Your task to perform on an android device: Go to network settings Image 0: 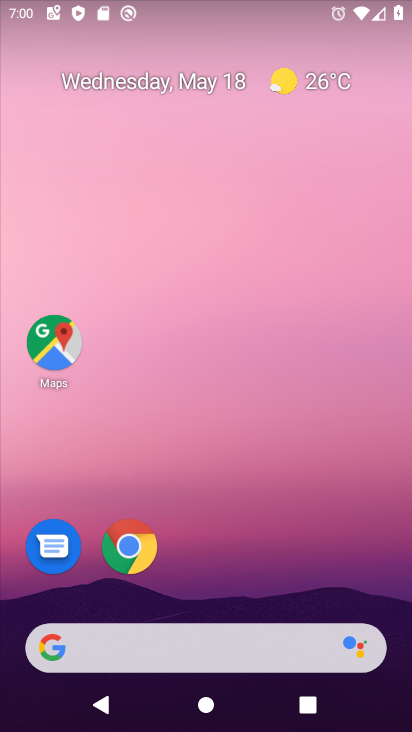
Step 0: drag from (391, 619) to (244, 85)
Your task to perform on an android device: Go to network settings Image 1: 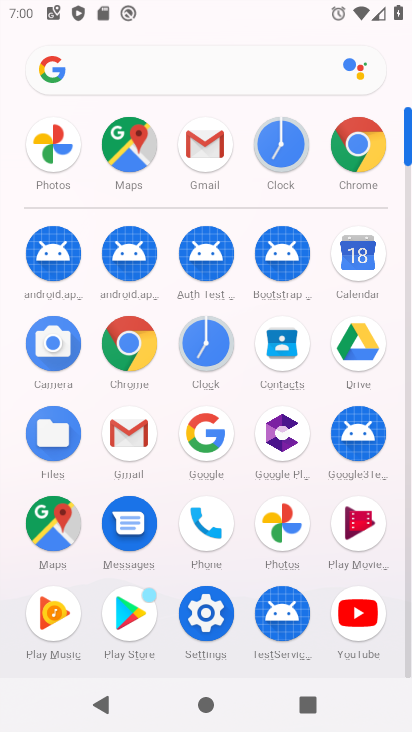
Step 1: click (202, 627)
Your task to perform on an android device: Go to network settings Image 2: 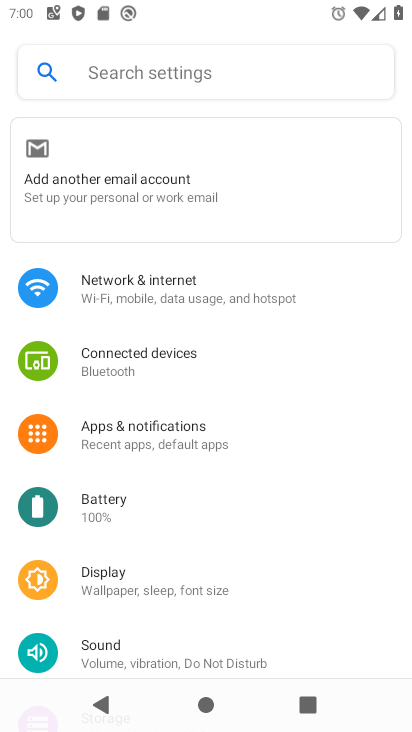
Step 2: click (146, 298)
Your task to perform on an android device: Go to network settings Image 3: 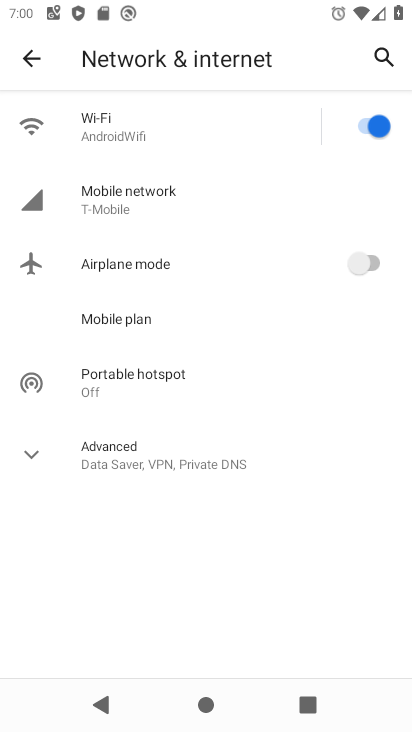
Step 3: task complete